Your task to perform on an android device: What is the recent news? Image 0: 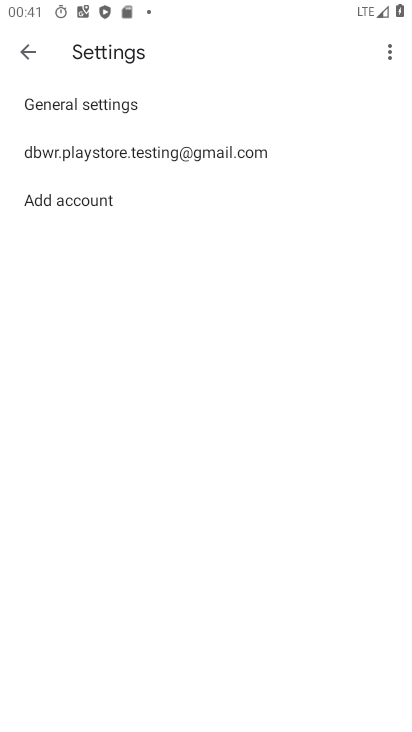
Step 0: press home button
Your task to perform on an android device: What is the recent news? Image 1: 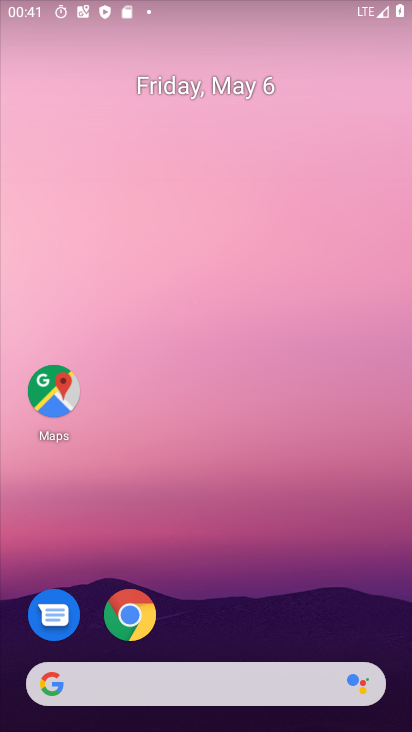
Step 1: drag from (214, 581) to (212, 2)
Your task to perform on an android device: What is the recent news? Image 2: 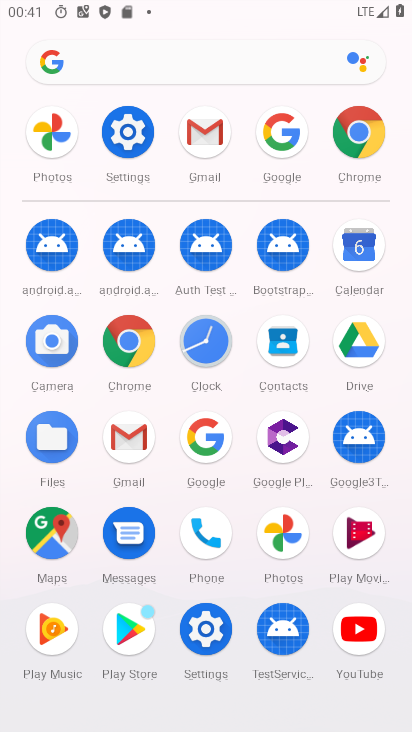
Step 2: click (207, 435)
Your task to perform on an android device: What is the recent news? Image 3: 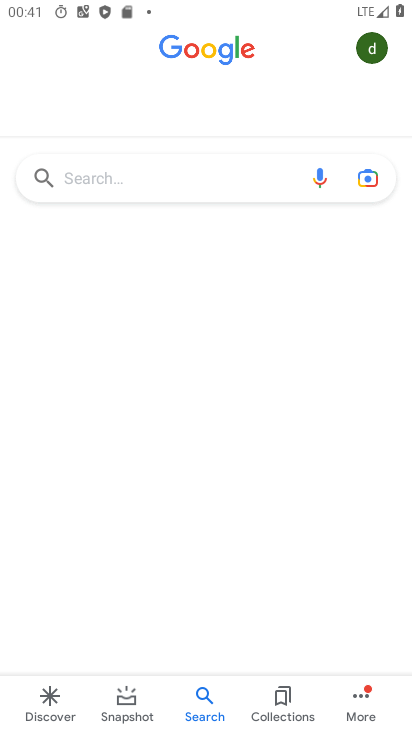
Step 3: click (172, 183)
Your task to perform on an android device: What is the recent news? Image 4: 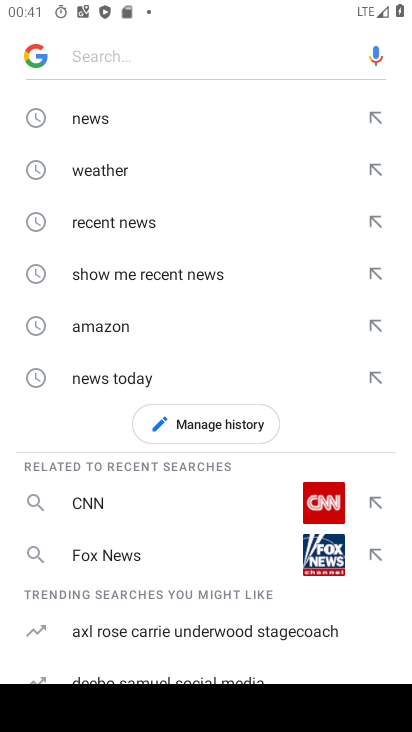
Step 4: click (122, 226)
Your task to perform on an android device: What is the recent news? Image 5: 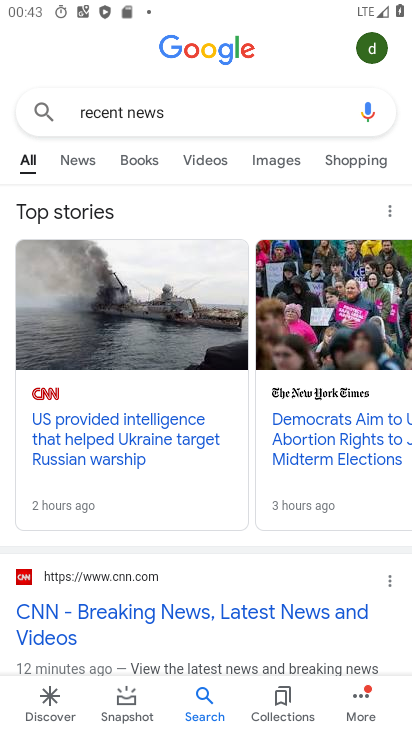
Step 5: task complete